Your task to perform on an android device: Go to Android settings Image 0: 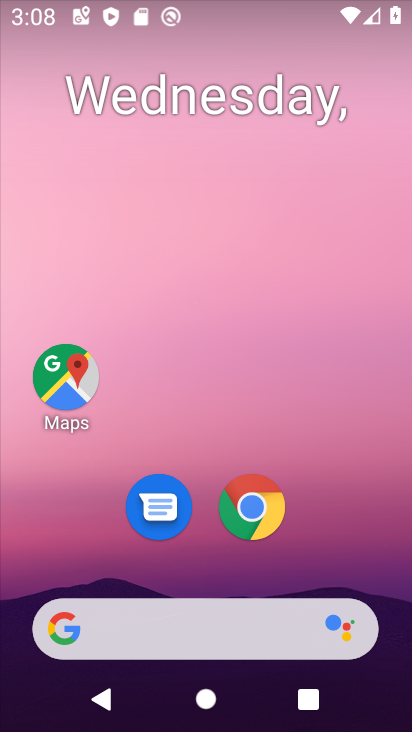
Step 0: drag from (307, 440) to (304, 246)
Your task to perform on an android device: Go to Android settings Image 1: 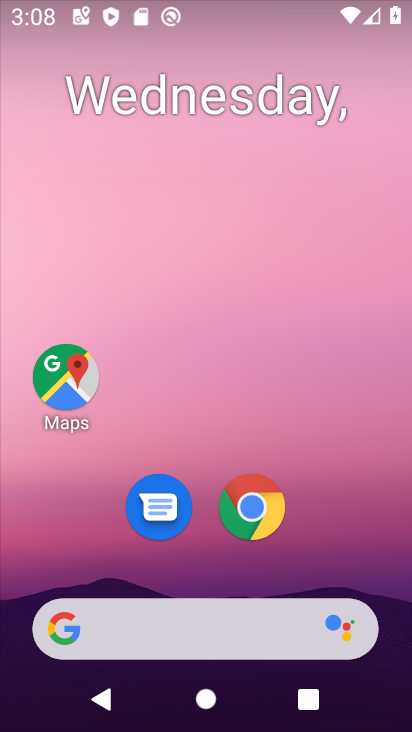
Step 1: drag from (361, 537) to (344, 140)
Your task to perform on an android device: Go to Android settings Image 2: 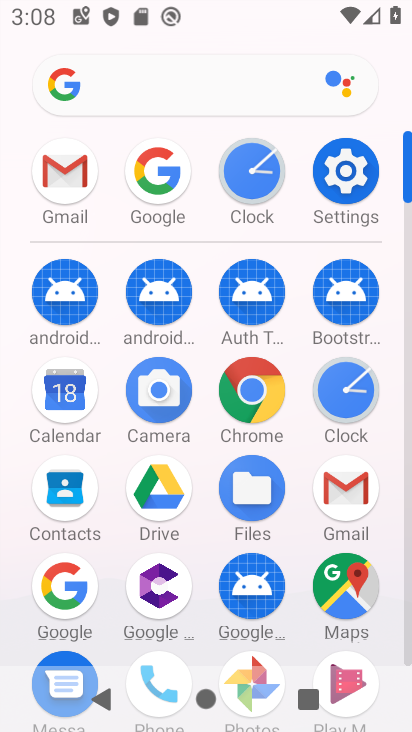
Step 2: click (338, 181)
Your task to perform on an android device: Go to Android settings Image 3: 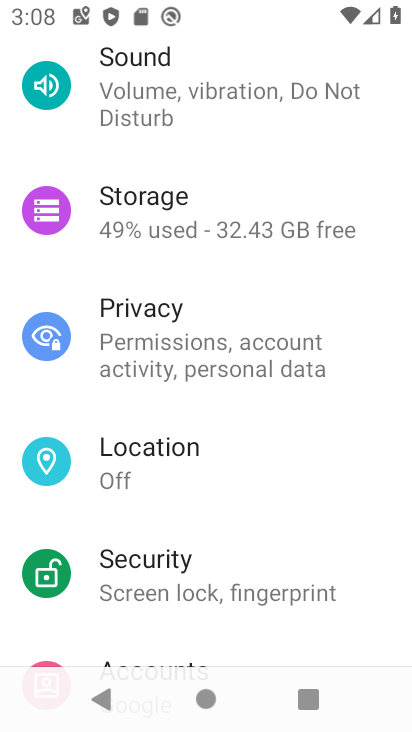
Step 3: task complete